Your task to perform on an android device: add a contact in the contacts app Image 0: 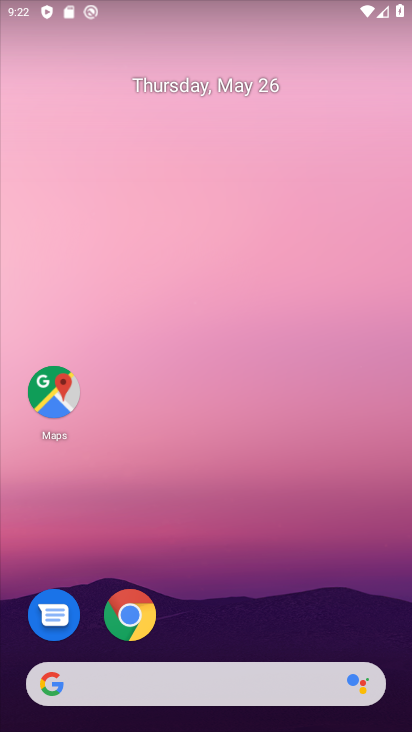
Step 0: drag from (112, 641) to (120, 3)
Your task to perform on an android device: add a contact in the contacts app Image 1: 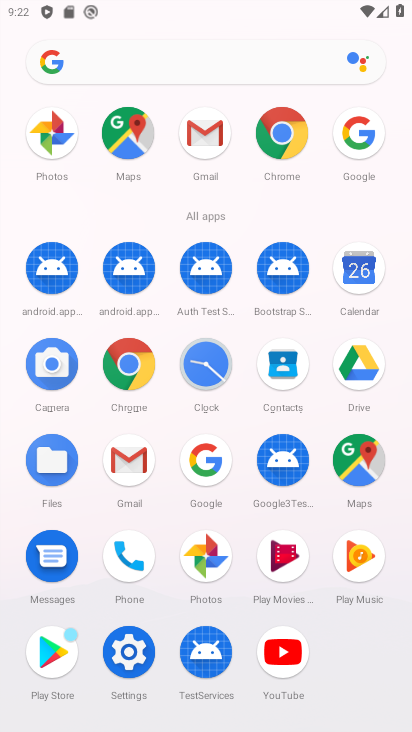
Step 1: click (283, 372)
Your task to perform on an android device: add a contact in the contacts app Image 2: 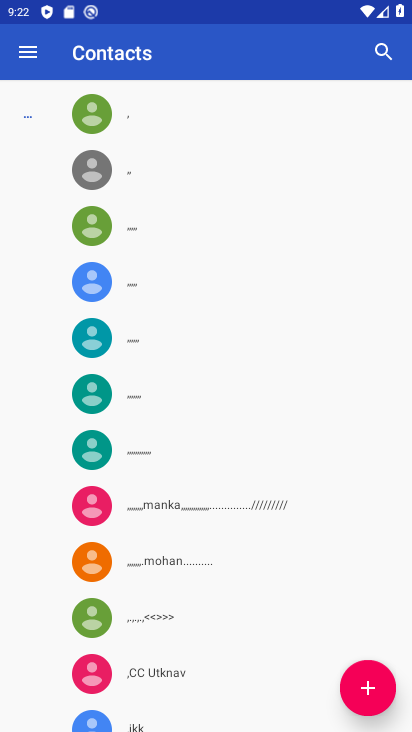
Step 2: click (382, 695)
Your task to perform on an android device: add a contact in the contacts app Image 3: 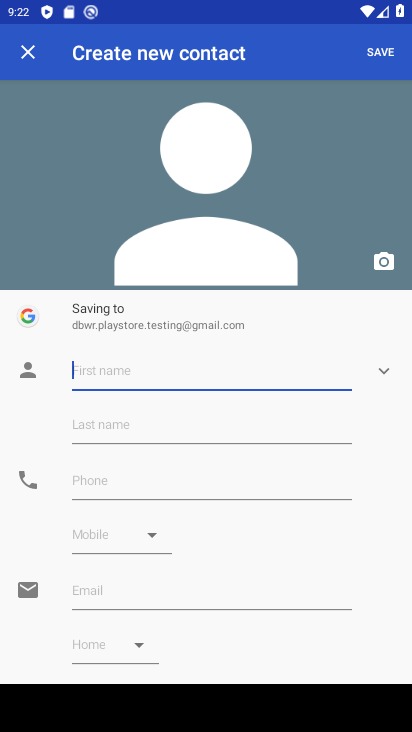
Step 3: type "as"
Your task to perform on an android device: add a contact in the contacts app Image 4: 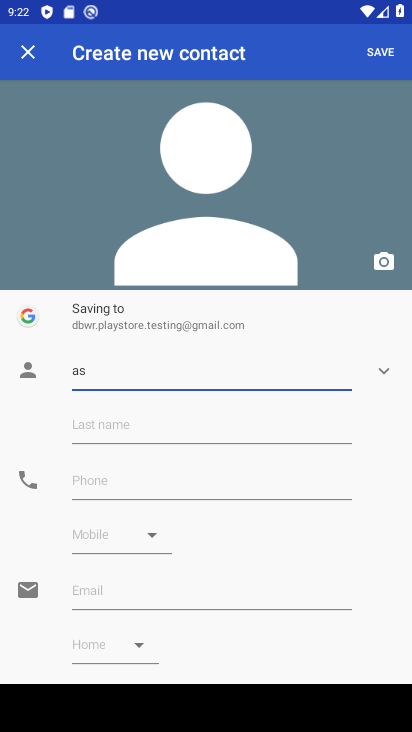
Step 4: click (169, 477)
Your task to perform on an android device: add a contact in the contacts app Image 5: 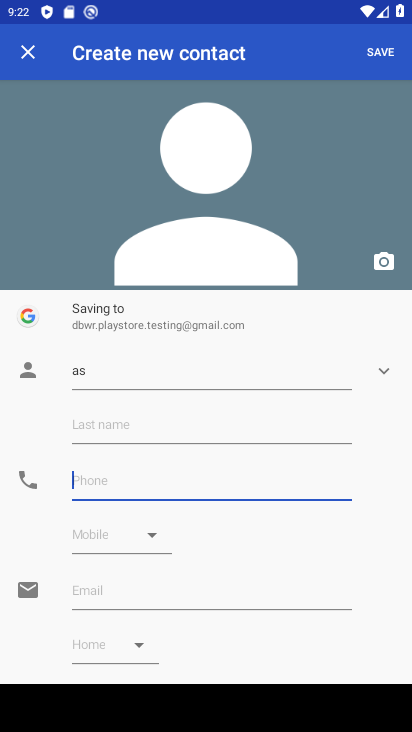
Step 5: type "9876543219"
Your task to perform on an android device: add a contact in the contacts app Image 6: 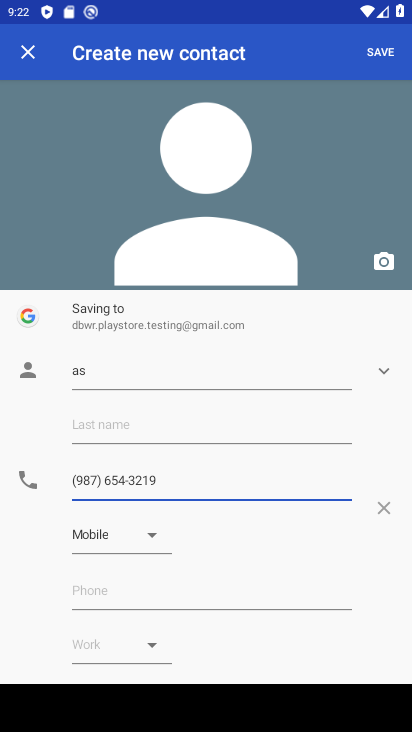
Step 6: click (385, 64)
Your task to perform on an android device: add a contact in the contacts app Image 7: 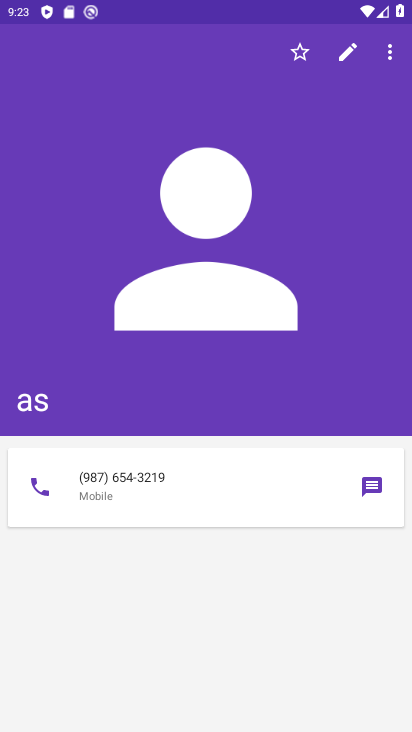
Step 7: task complete